Your task to perform on an android device: snooze an email in the gmail app Image 0: 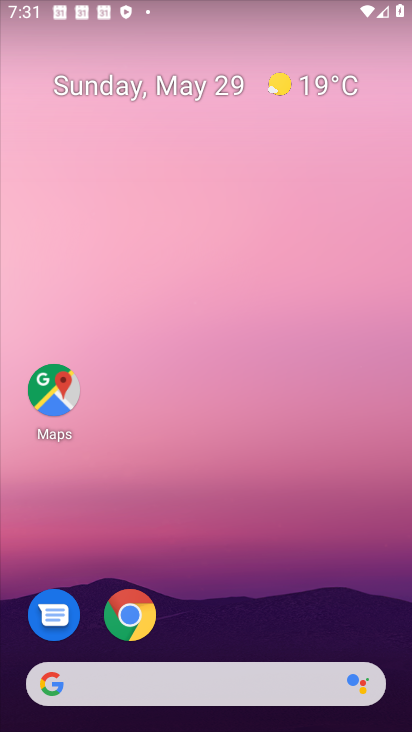
Step 0: drag from (130, 726) to (189, 24)
Your task to perform on an android device: snooze an email in the gmail app Image 1: 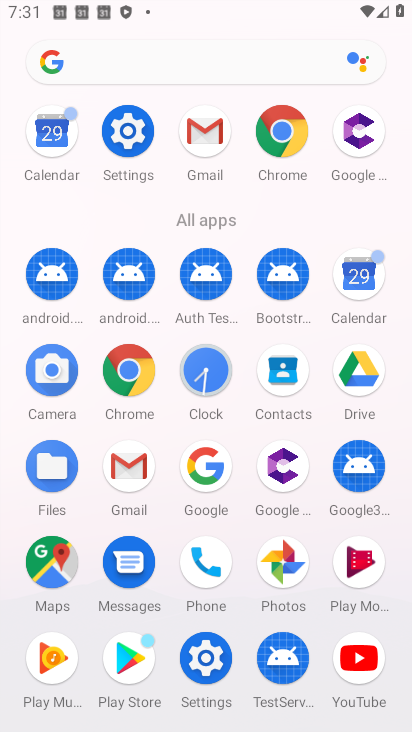
Step 1: click (216, 145)
Your task to perform on an android device: snooze an email in the gmail app Image 2: 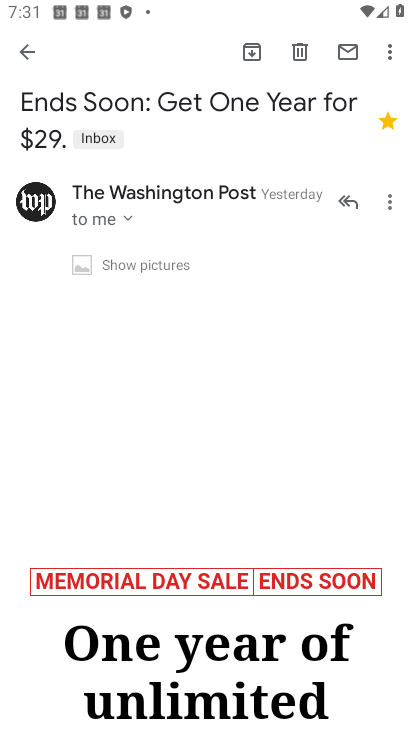
Step 2: click (389, 198)
Your task to perform on an android device: snooze an email in the gmail app Image 3: 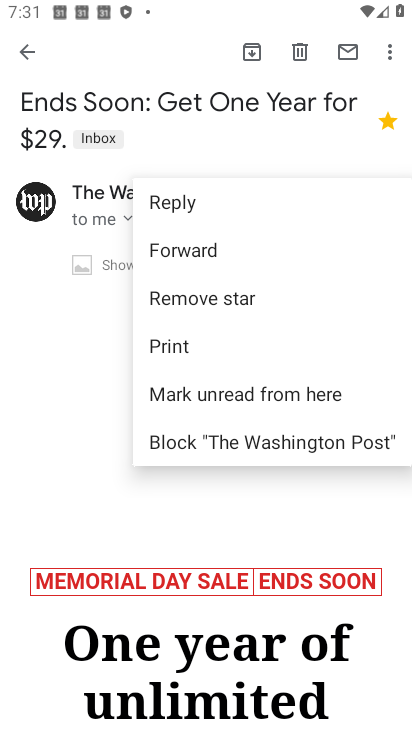
Step 3: click (391, 56)
Your task to perform on an android device: snooze an email in the gmail app Image 4: 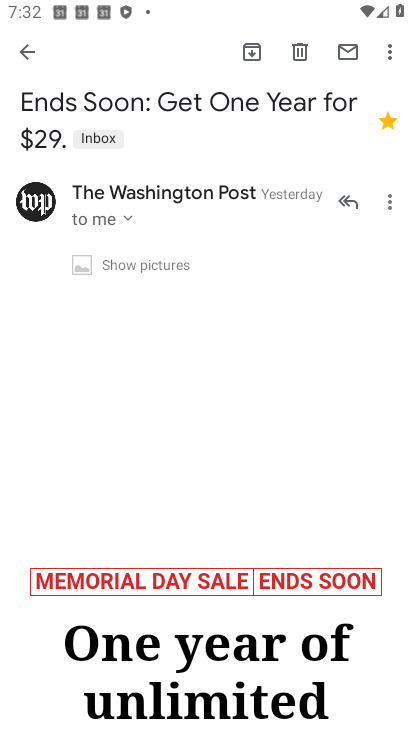
Step 4: click (391, 56)
Your task to perform on an android device: snooze an email in the gmail app Image 5: 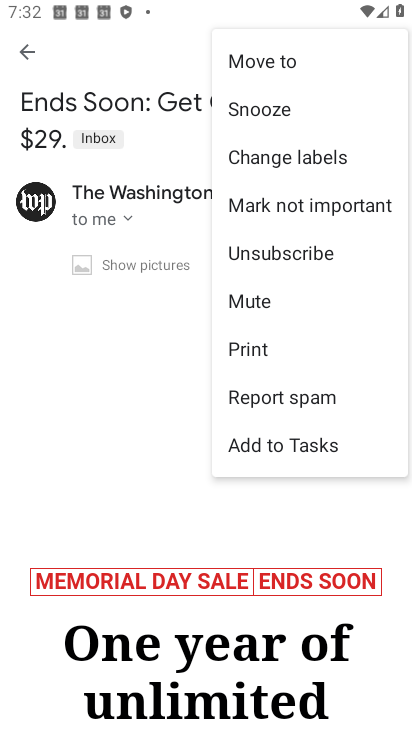
Step 5: click (279, 111)
Your task to perform on an android device: snooze an email in the gmail app Image 6: 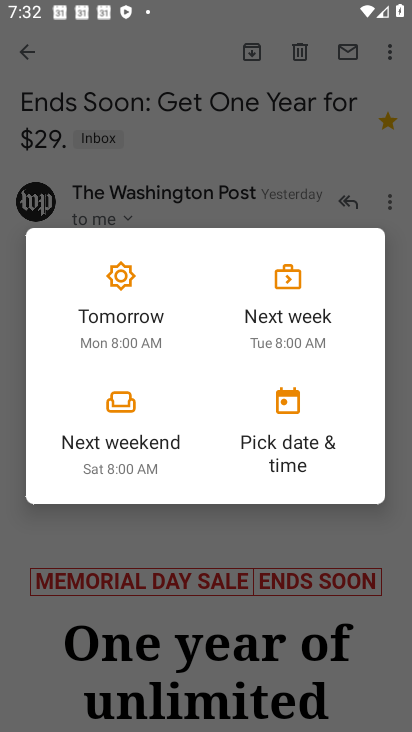
Step 6: click (151, 340)
Your task to perform on an android device: snooze an email in the gmail app Image 7: 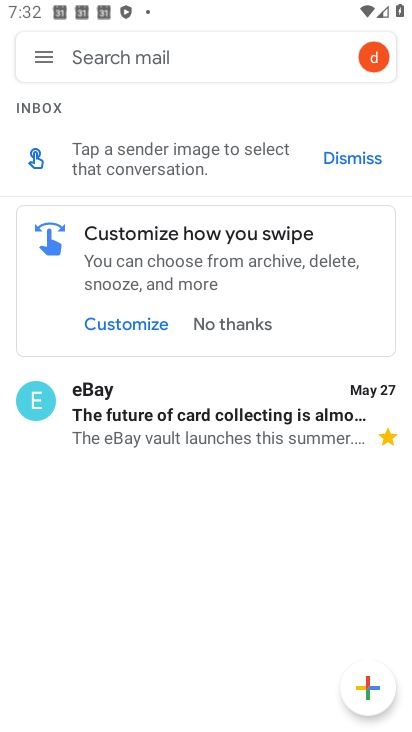
Step 7: task complete